Your task to perform on an android device: Check the news Image 0: 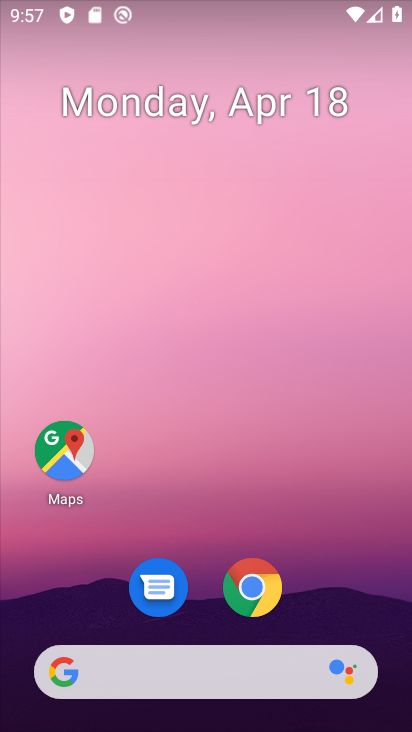
Step 0: drag from (280, 707) to (178, 140)
Your task to perform on an android device: Check the news Image 1: 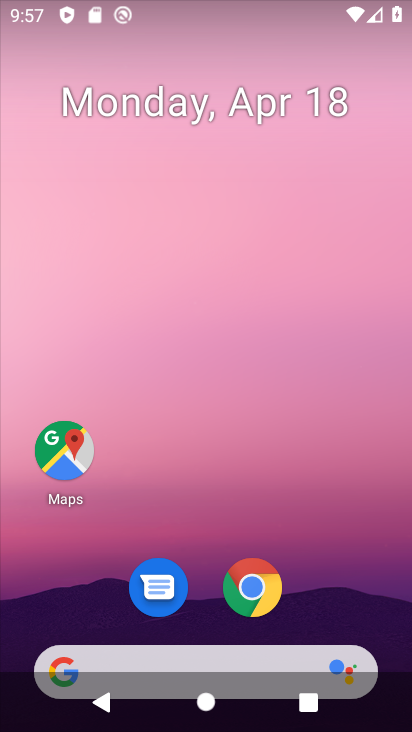
Step 1: drag from (280, 500) to (190, 180)
Your task to perform on an android device: Check the news Image 2: 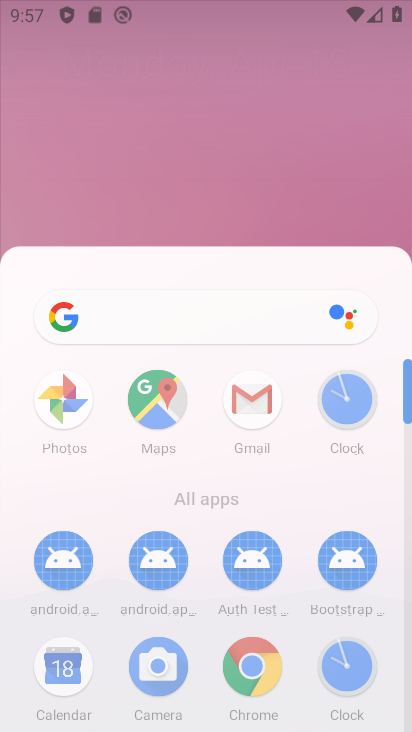
Step 2: drag from (321, 554) to (157, 175)
Your task to perform on an android device: Check the news Image 3: 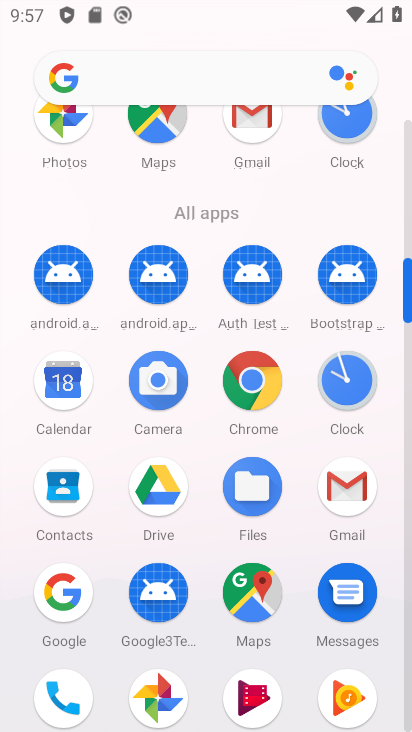
Step 3: click (239, 384)
Your task to perform on an android device: Check the news Image 4: 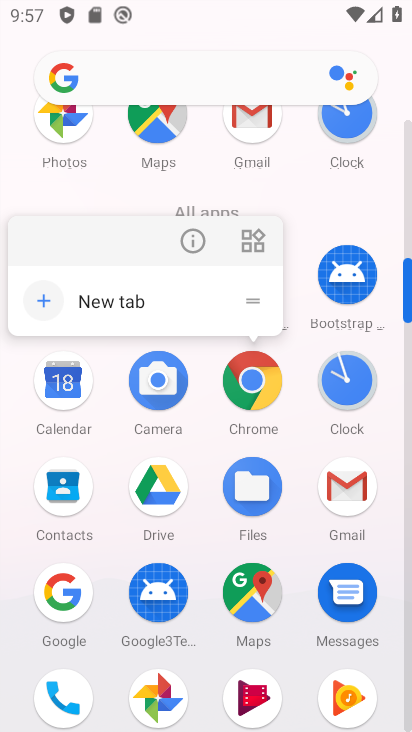
Step 4: click (245, 386)
Your task to perform on an android device: Check the news Image 5: 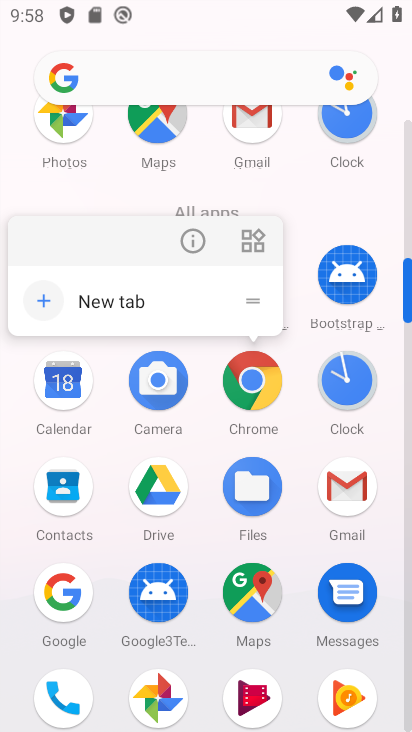
Step 5: click (289, 205)
Your task to perform on an android device: Check the news Image 6: 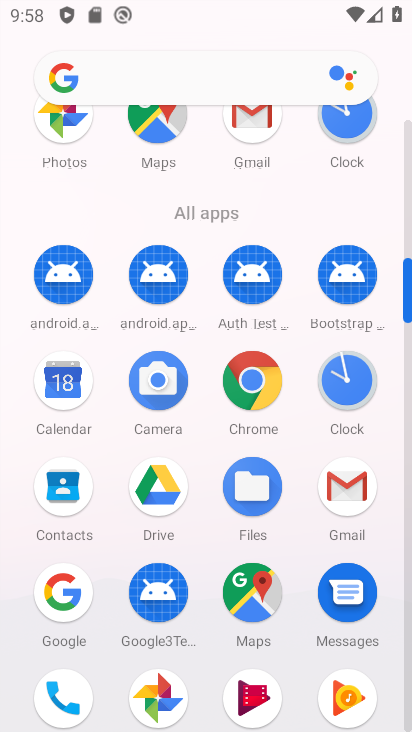
Step 6: click (238, 385)
Your task to perform on an android device: Check the news Image 7: 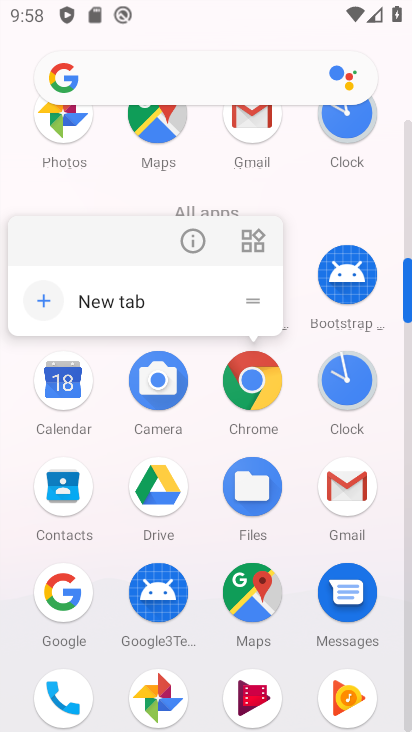
Step 7: click (253, 380)
Your task to perform on an android device: Check the news Image 8: 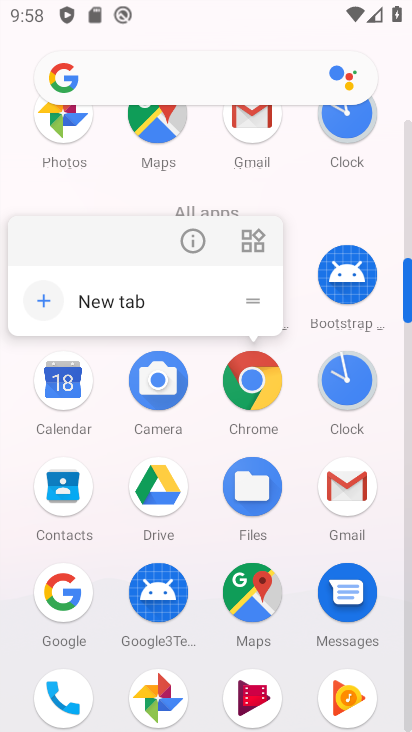
Step 8: click (261, 373)
Your task to perform on an android device: Check the news Image 9: 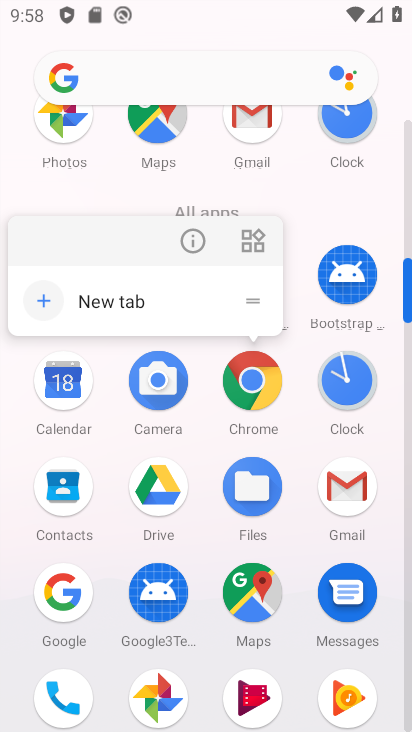
Step 9: drag from (262, 364) to (238, 423)
Your task to perform on an android device: Check the news Image 10: 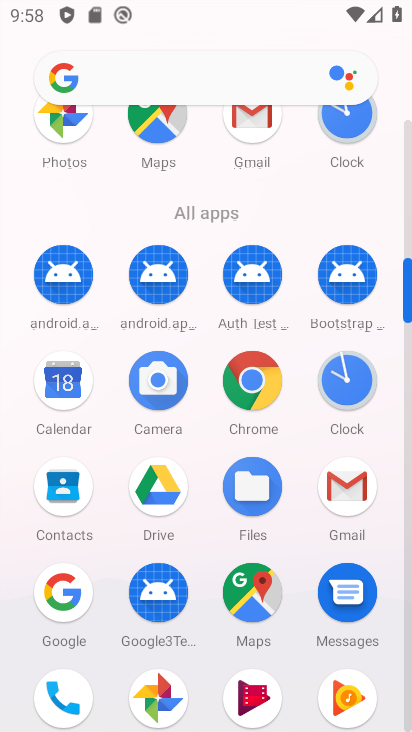
Step 10: click (255, 371)
Your task to perform on an android device: Check the news Image 11: 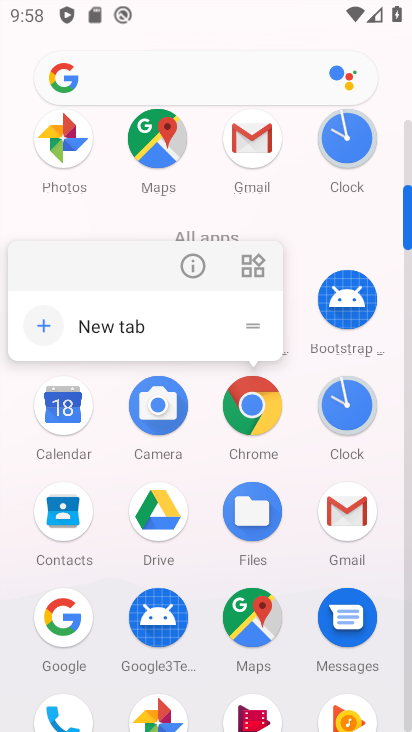
Step 11: click (255, 400)
Your task to perform on an android device: Check the news Image 12: 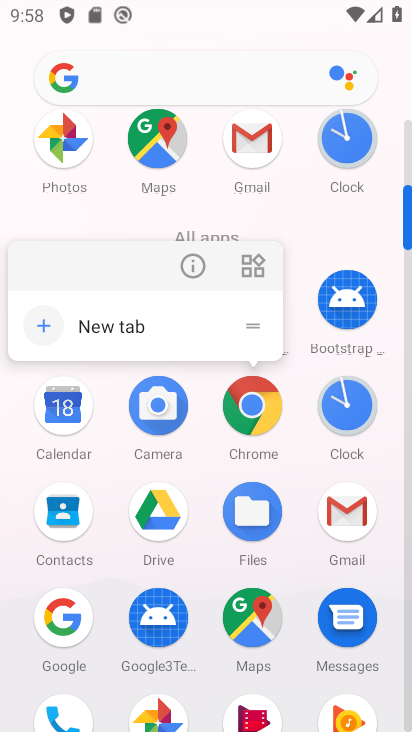
Step 12: click (223, 398)
Your task to perform on an android device: Check the news Image 13: 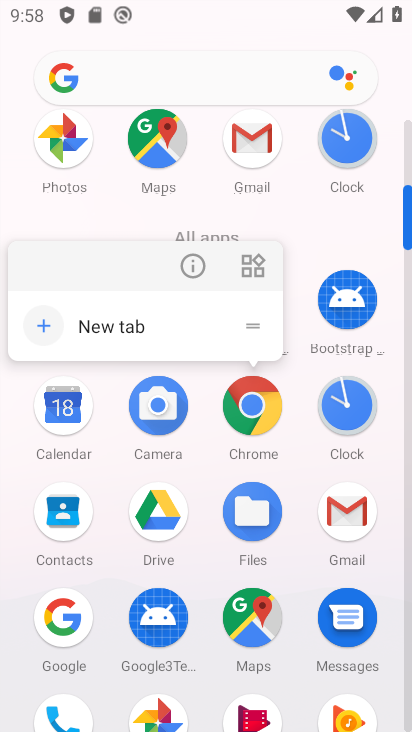
Step 13: click (265, 420)
Your task to perform on an android device: Check the news Image 14: 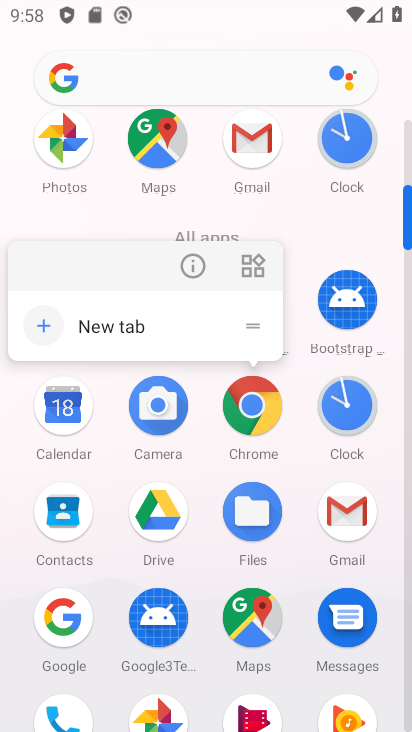
Step 14: click (261, 402)
Your task to perform on an android device: Check the news Image 15: 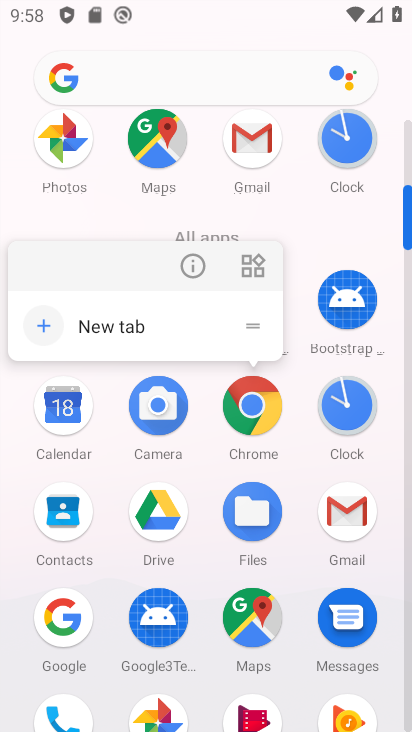
Step 15: click (261, 402)
Your task to perform on an android device: Check the news Image 16: 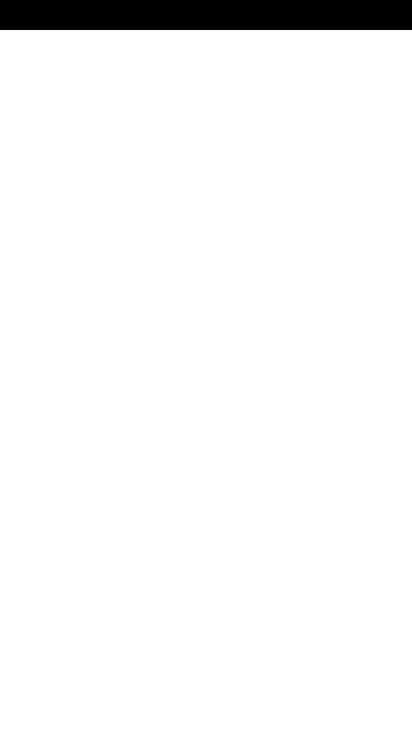
Step 16: click (258, 400)
Your task to perform on an android device: Check the news Image 17: 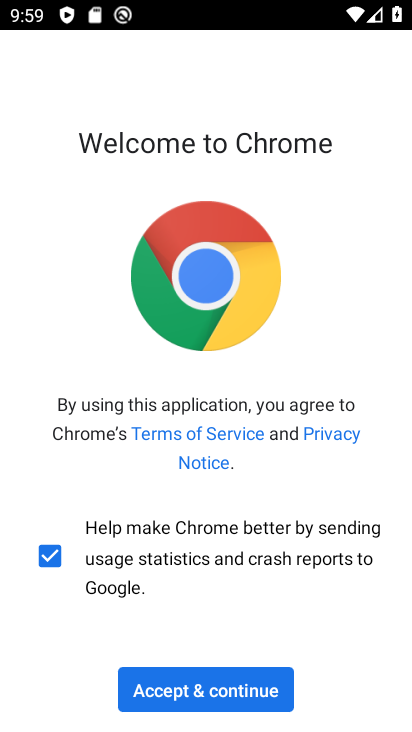
Step 17: click (227, 691)
Your task to perform on an android device: Check the news Image 18: 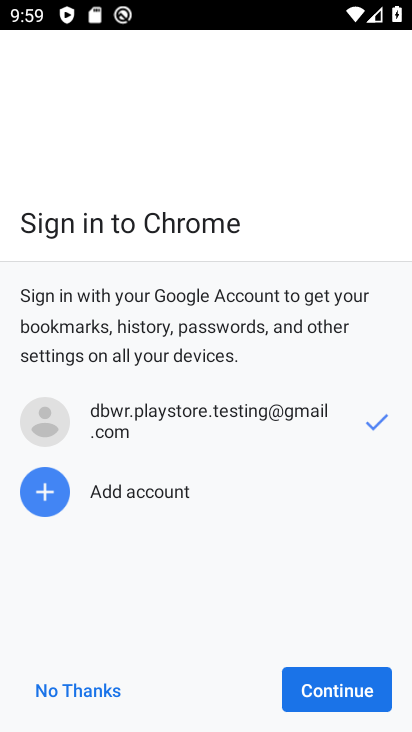
Step 18: click (344, 687)
Your task to perform on an android device: Check the news Image 19: 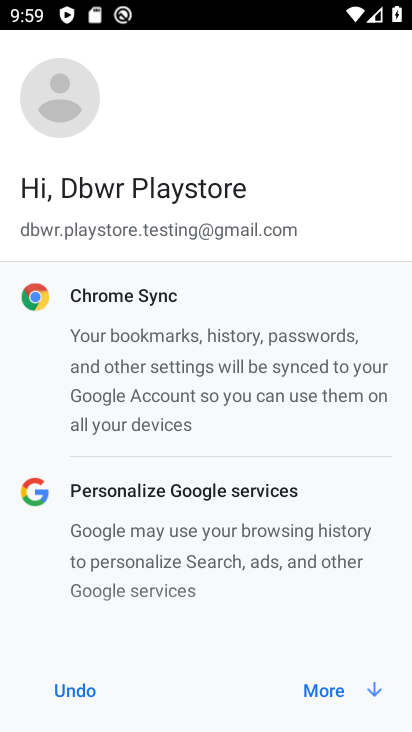
Step 19: click (328, 692)
Your task to perform on an android device: Check the news Image 20: 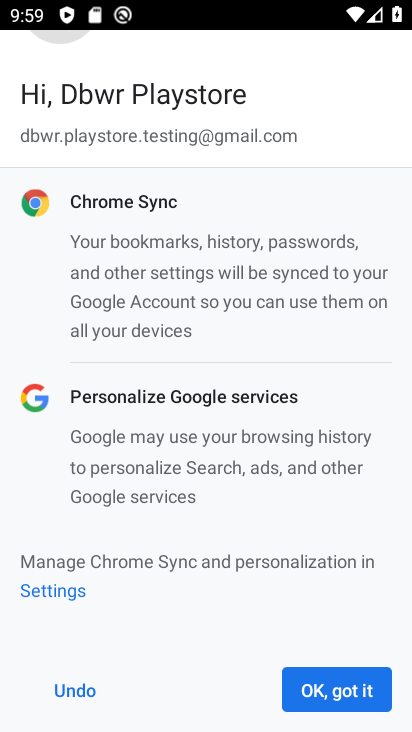
Step 20: click (334, 687)
Your task to perform on an android device: Check the news Image 21: 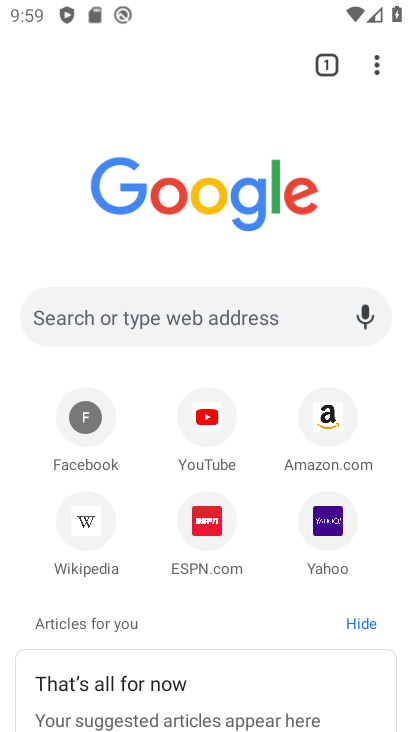
Step 21: drag from (17, 270) to (383, 365)
Your task to perform on an android device: Check the news Image 22: 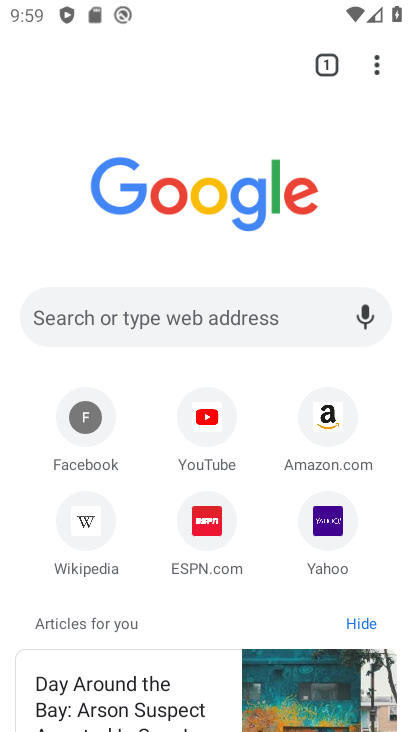
Step 22: drag from (19, 279) to (400, 258)
Your task to perform on an android device: Check the news Image 23: 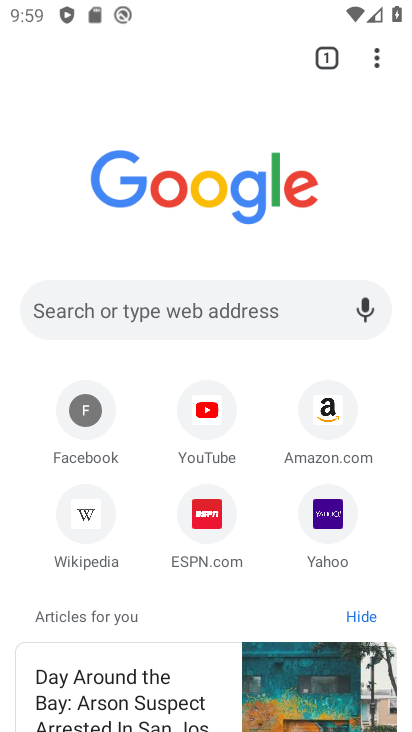
Step 23: drag from (60, 249) to (397, 260)
Your task to perform on an android device: Check the news Image 24: 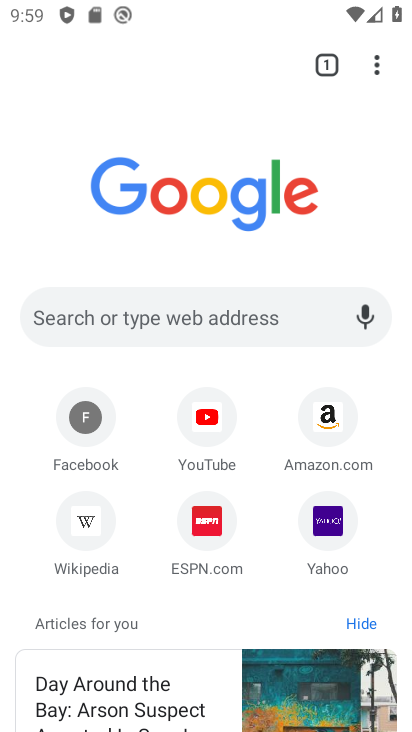
Step 24: drag from (223, 524) to (250, 166)
Your task to perform on an android device: Check the news Image 25: 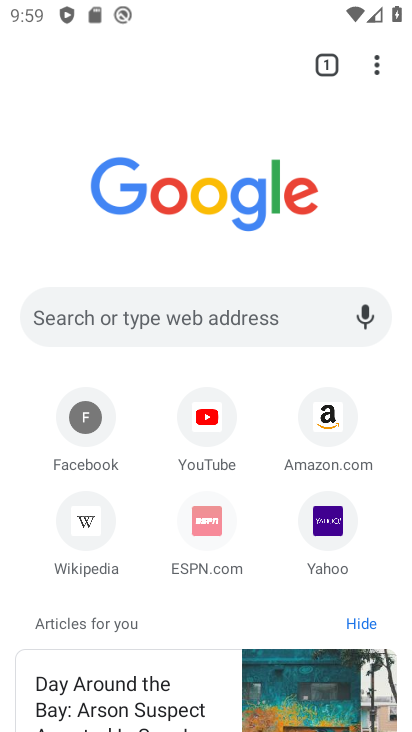
Step 25: drag from (216, 495) to (206, 170)
Your task to perform on an android device: Check the news Image 26: 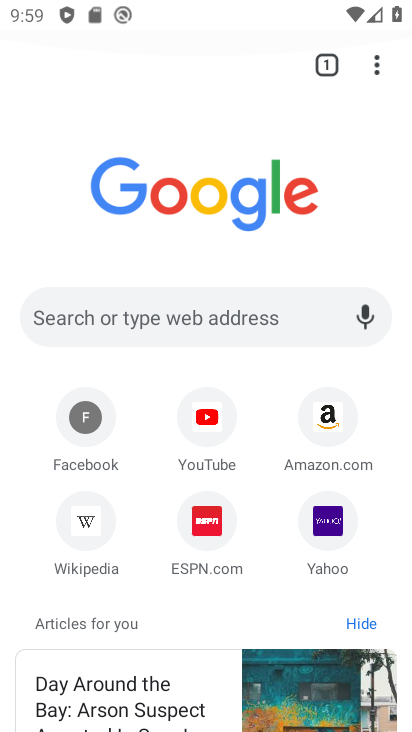
Step 26: drag from (275, 312) to (266, 137)
Your task to perform on an android device: Check the news Image 27: 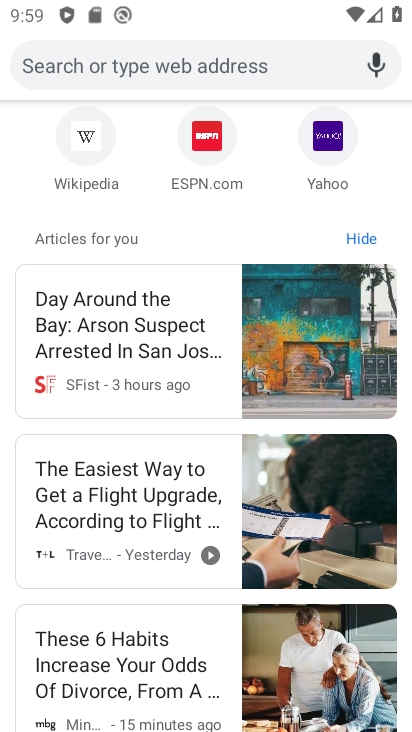
Step 27: drag from (277, 362) to (246, 149)
Your task to perform on an android device: Check the news Image 28: 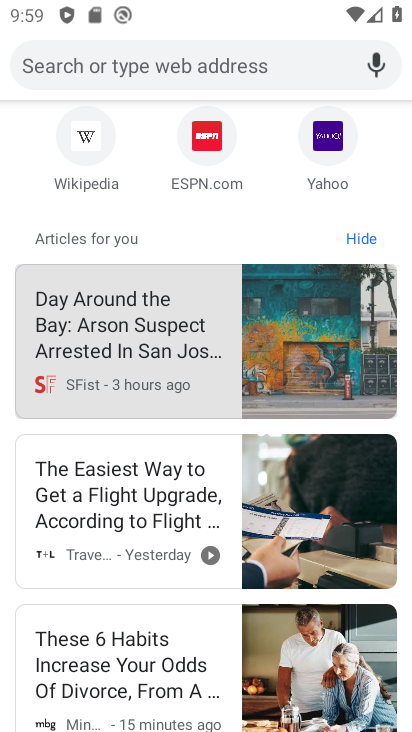
Step 28: click (249, 182)
Your task to perform on an android device: Check the news Image 29: 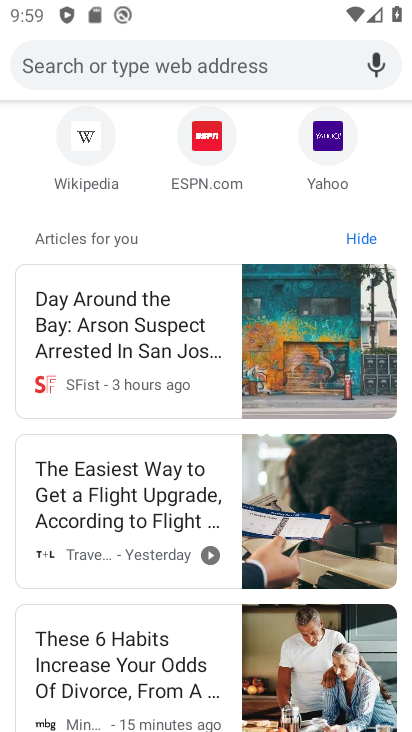
Step 29: task complete